Your task to perform on an android device: change notifications settings Image 0: 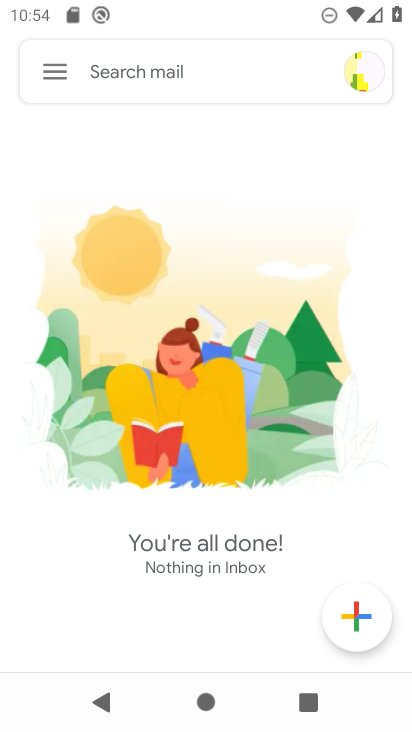
Step 0: press home button
Your task to perform on an android device: change notifications settings Image 1: 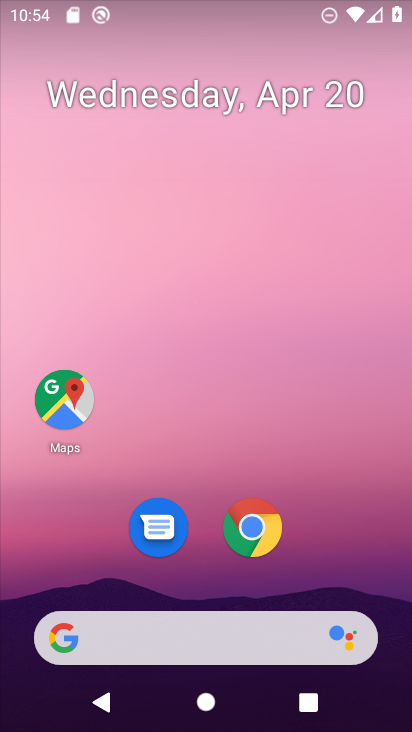
Step 1: drag from (194, 581) to (312, 18)
Your task to perform on an android device: change notifications settings Image 2: 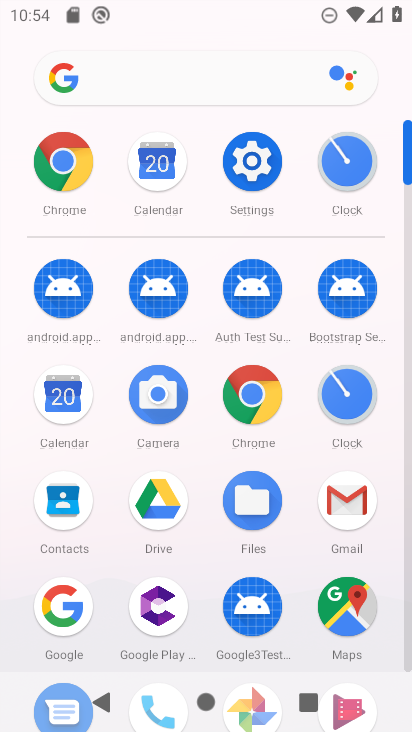
Step 2: click (253, 181)
Your task to perform on an android device: change notifications settings Image 3: 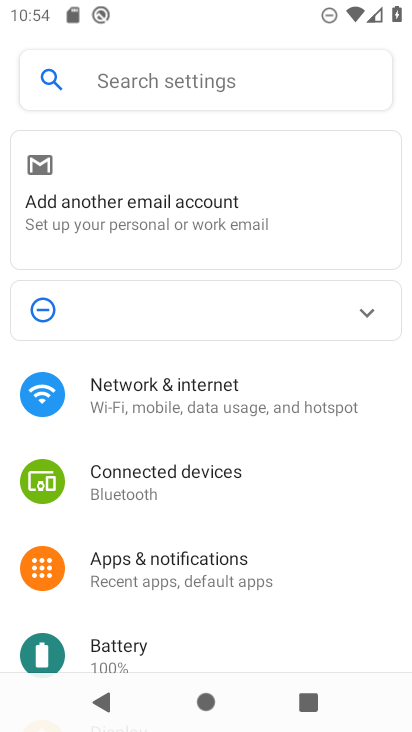
Step 3: click (173, 563)
Your task to perform on an android device: change notifications settings Image 4: 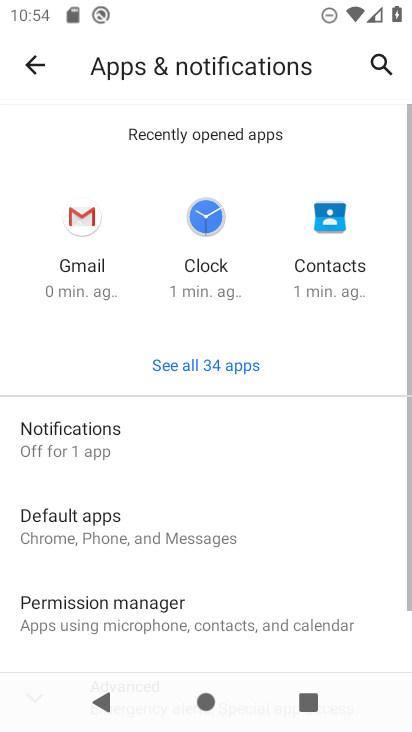
Step 4: drag from (198, 556) to (212, 362)
Your task to perform on an android device: change notifications settings Image 5: 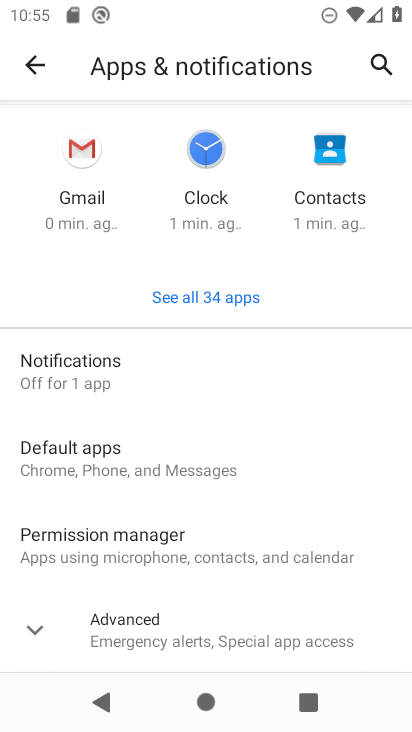
Step 5: click (106, 374)
Your task to perform on an android device: change notifications settings Image 6: 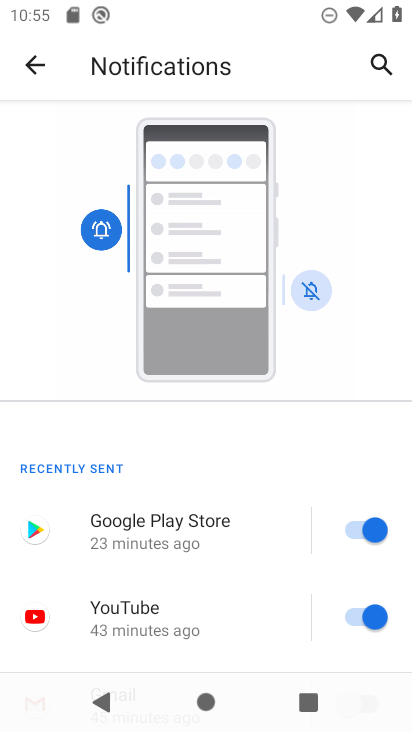
Step 6: drag from (151, 599) to (219, 251)
Your task to perform on an android device: change notifications settings Image 7: 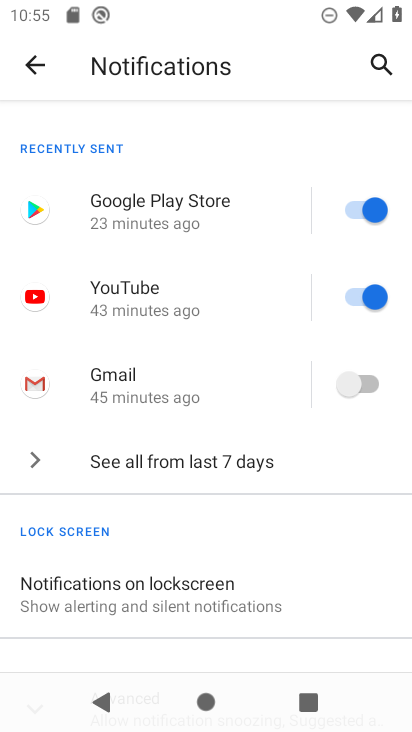
Step 7: click (365, 288)
Your task to perform on an android device: change notifications settings Image 8: 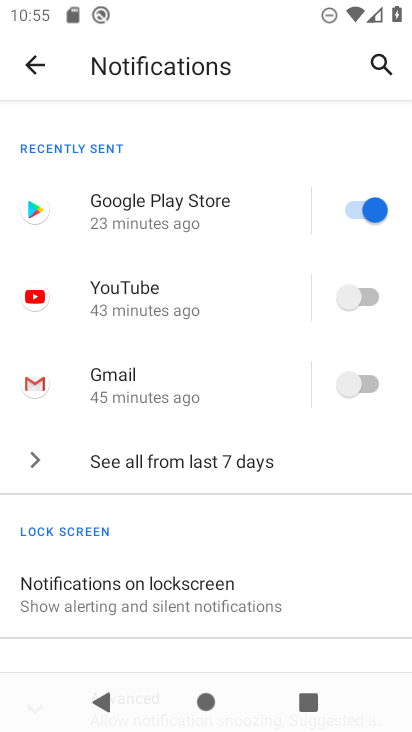
Step 8: click (363, 197)
Your task to perform on an android device: change notifications settings Image 9: 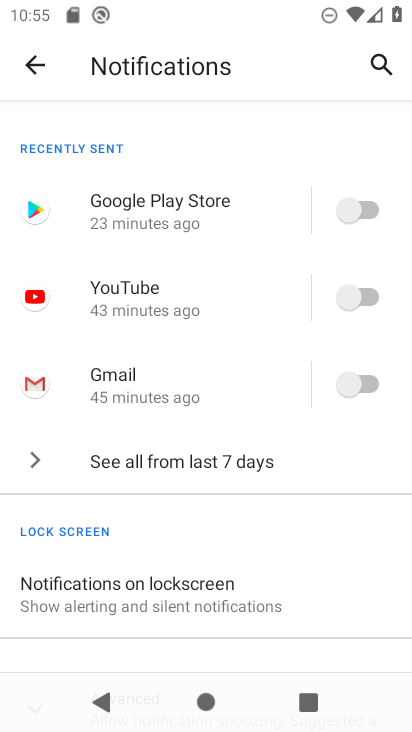
Step 9: task complete